Your task to perform on an android device: Open Wikipedia Image 0: 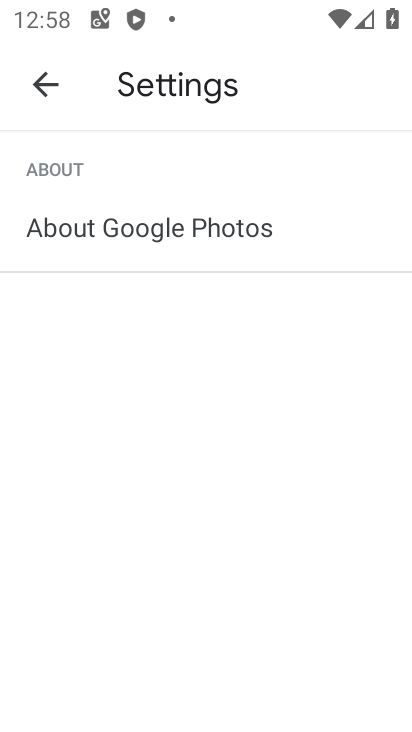
Step 0: press home button
Your task to perform on an android device: Open Wikipedia Image 1: 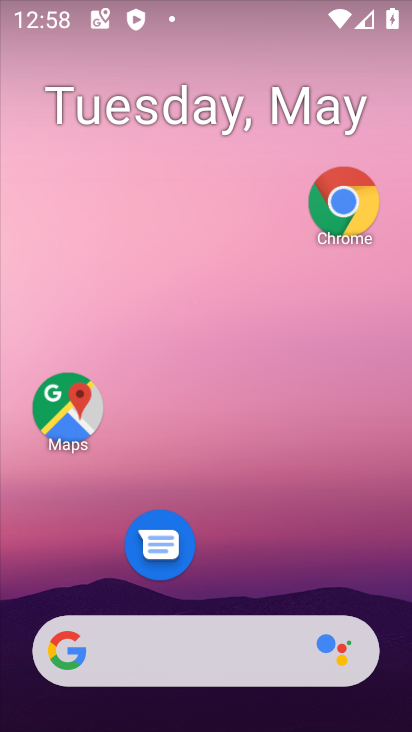
Step 1: click (349, 189)
Your task to perform on an android device: Open Wikipedia Image 2: 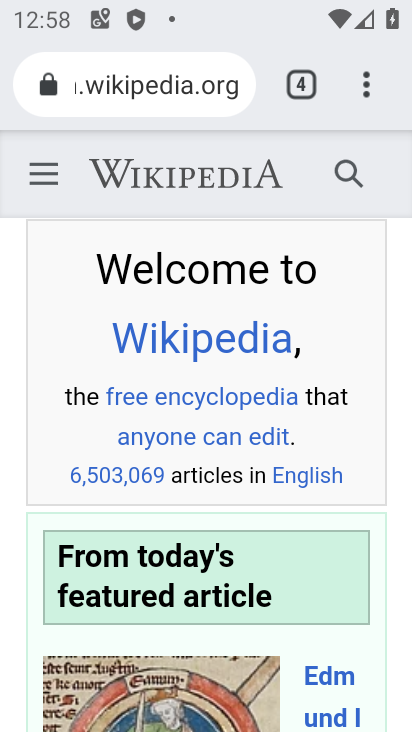
Step 2: task complete